Your task to perform on an android device: What's US dollar exchange rate against the Indian Rupee? Image 0: 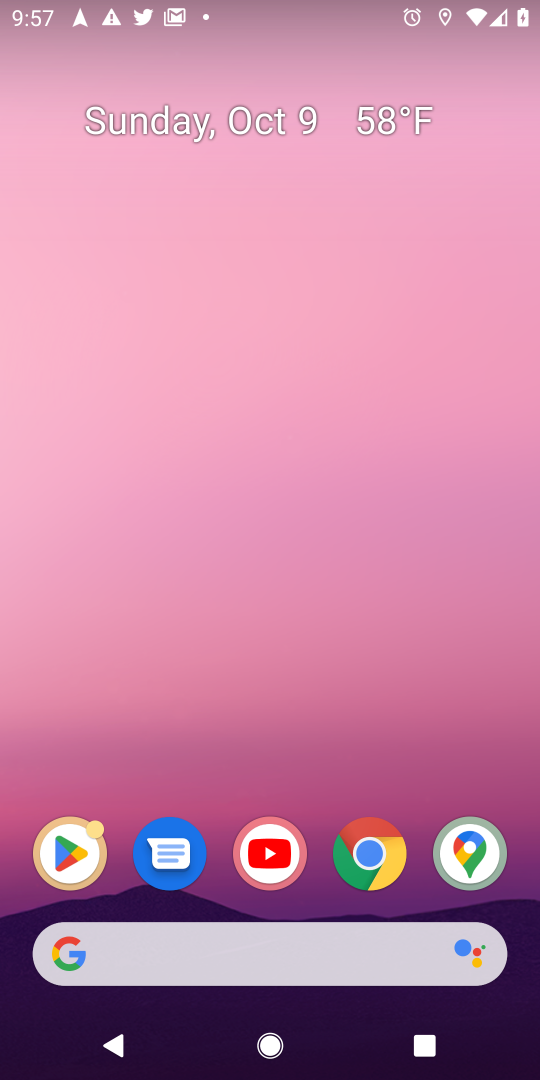
Step 0: click (378, 853)
Your task to perform on an android device: What's US dollar exchange rate against the Indian Rupee? Image 1: 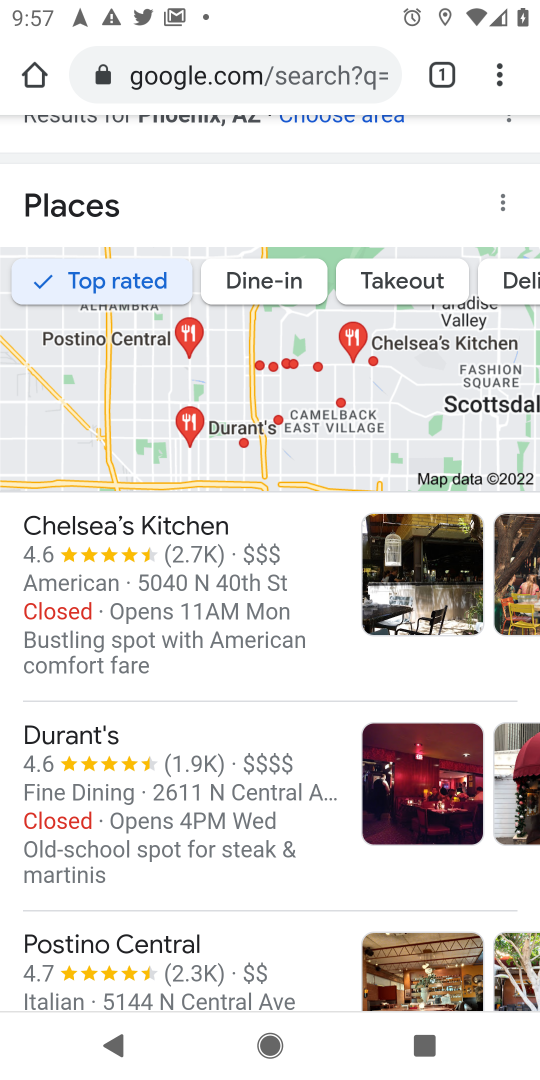
Step 1: click (296, 49)
Your task to perform on an android device: What's US dollar exchange rate against the Indian Rupee? Image 2: 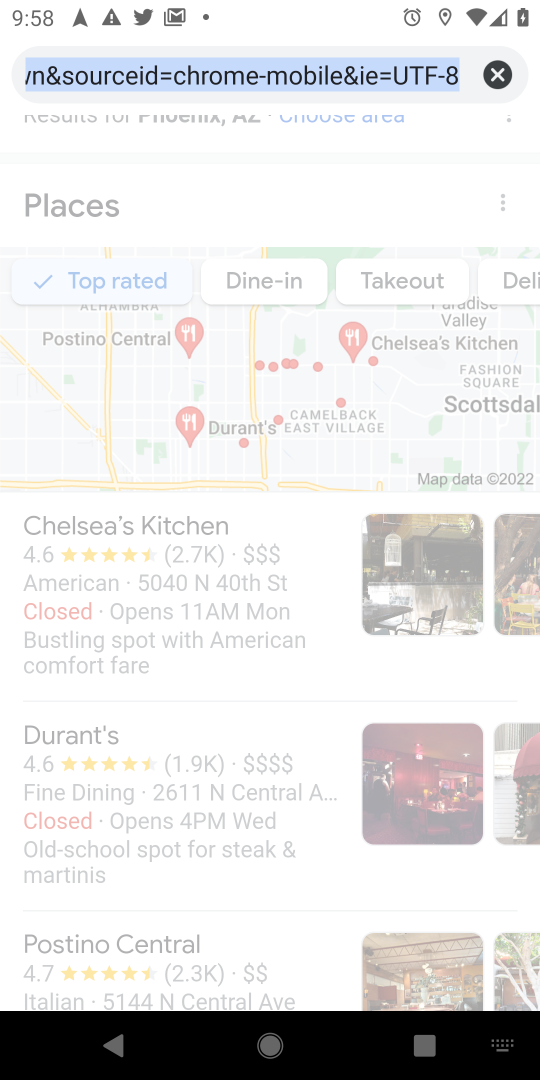
Step 2: type "usd to inr"
Your task to perform on an android device: What's US dollar exchange rate against the Indian Rupee? Image 3: 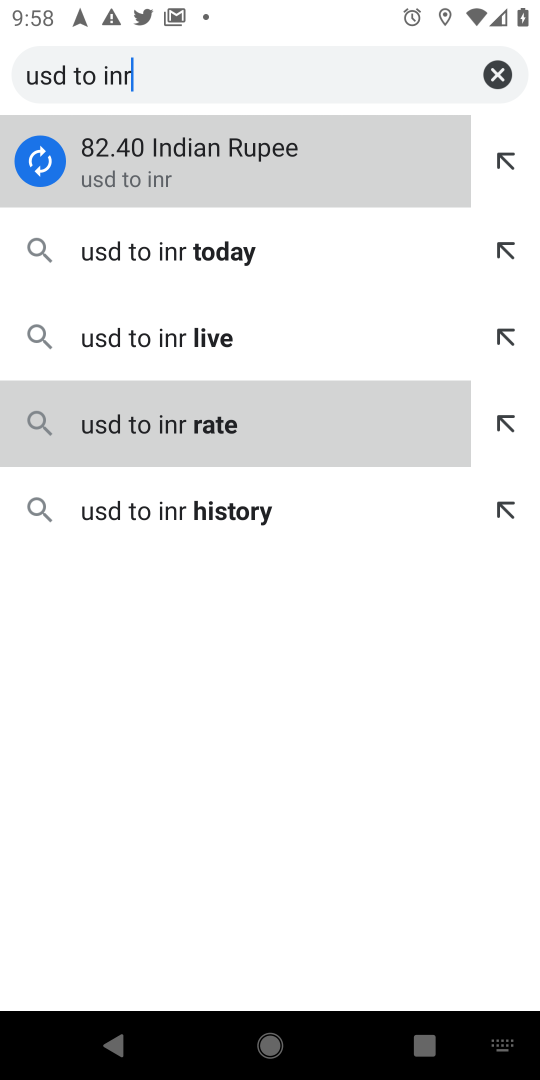
Step 3: click (325, 155)
Your task to perform on an android device: What's US dollar exchange rate against the Indian Rupee? Image 4: 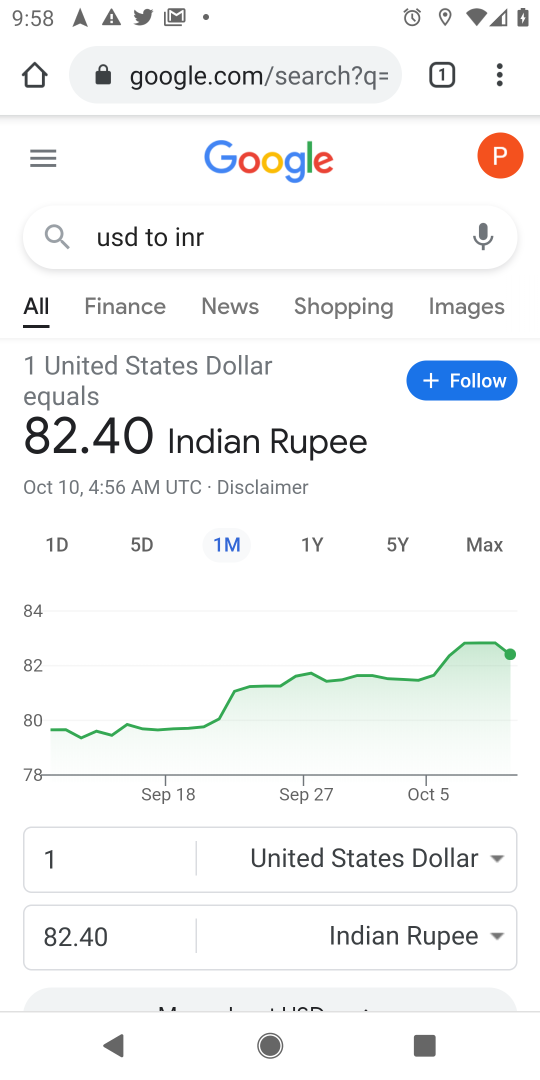
Step 4: task complete